Your task to perform on an android device: Open calendar and show me the fourth week of next month Image 0: 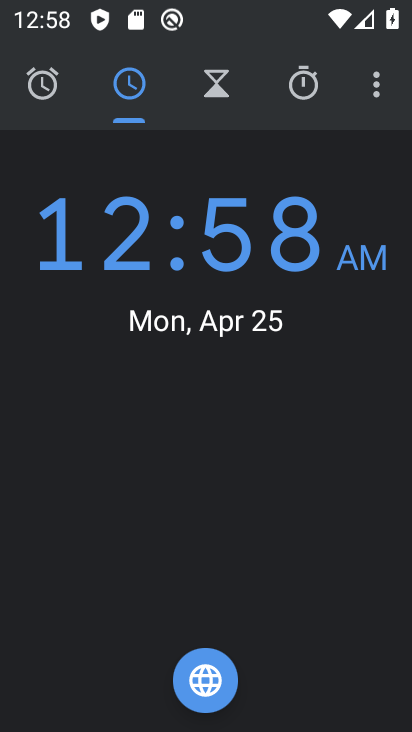
Step 0: press home button
Your task to perform on an android device: Open calendar and show me the fourth week of next month Image 1: 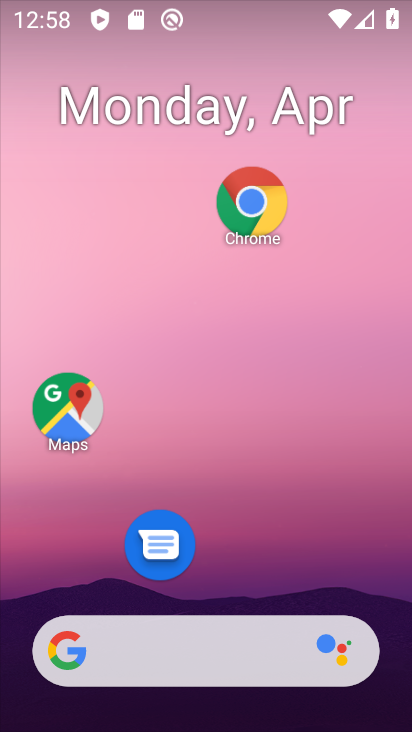
Step 1: click (267, 124)
Your task to perform on an android device: Open calendar and show me the fourth week of next month Image 2: 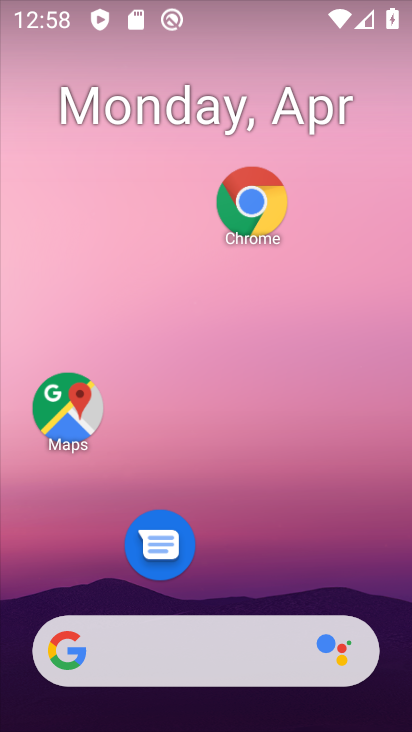
Step 2: click (175, 96)
Your task to perform on an android device: Open calendar and show me the fourth week of next month Image 3: 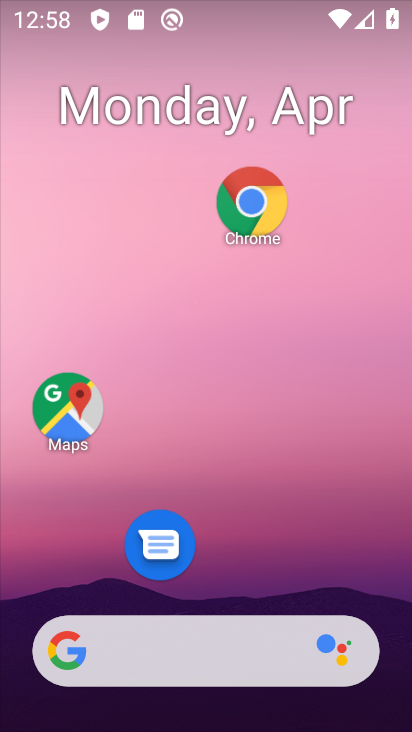
Step 3: drag from (273, 597) to (224, 135)
Your task to perform on an android device: Open calendar and show me the fourth week of next month Image 4: 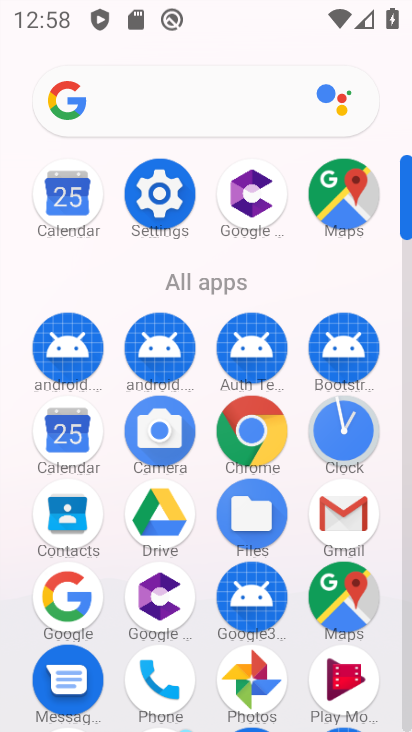
Step 4: click (73, 210)
Your task to perform on an android device: Open calendar and show me the fourth week of next month Image 5: 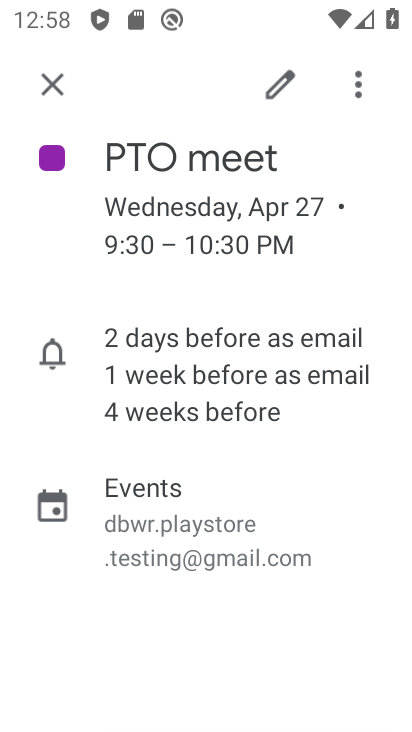
Step 5: click (53, 64)
Your task to perform on an android device: Open calendar and show me the fourth week of next month Image 6: 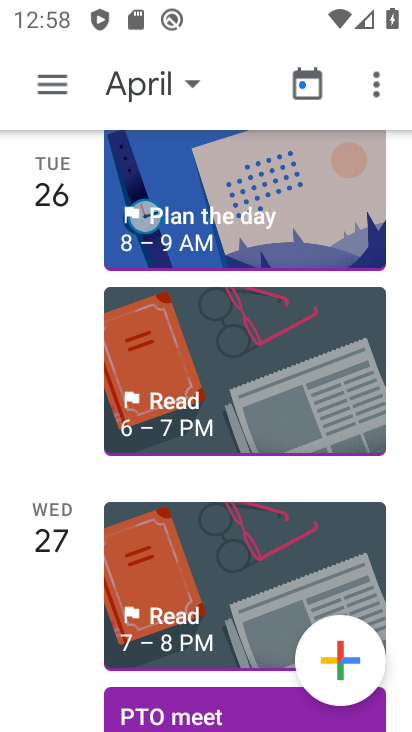
Step 6: click (154, 64)
Your task to perform on an android device: Open calendar and show me the fourth week of next month Image 7: 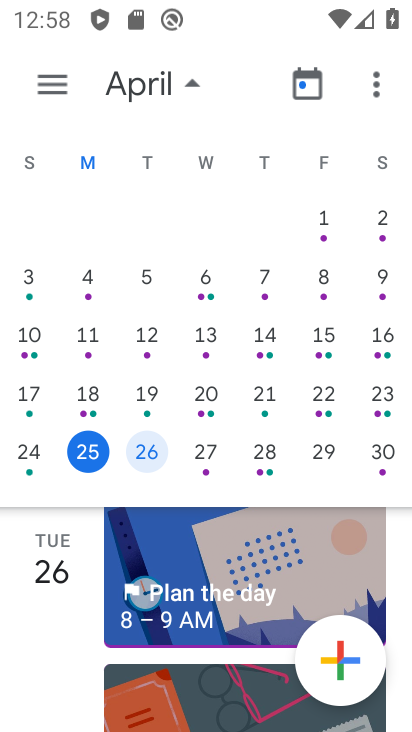
Step 7: drag from (365, 427) to (23, 445)
Your task to perform on an android device: Open calendar and show me the fourth week of next month Image 8: 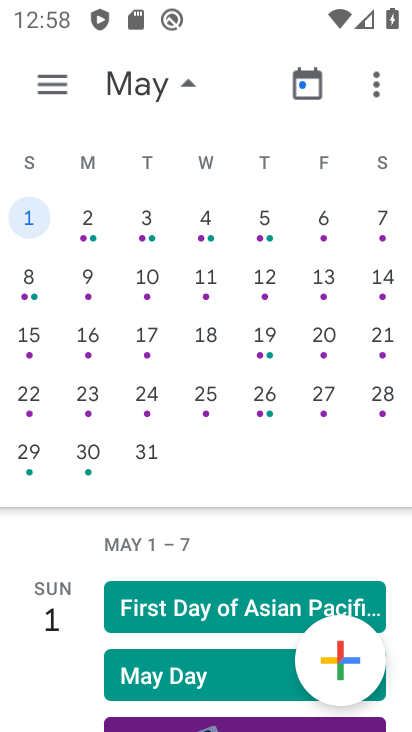
Step 8: click (262, 395)
Your task to perform on an android device: Open calendar and show me the fourth week of next month Image 9: 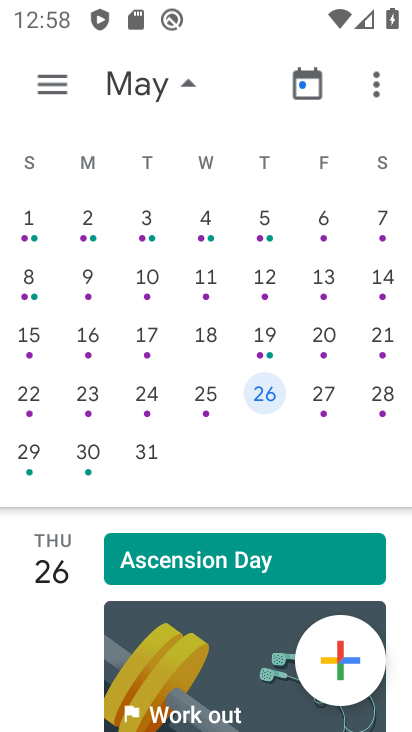
Step 9: task complete